Your task to perform on an android device: View the shopping cart on target. Add "asus zenbook" to the cart on target Image 0: 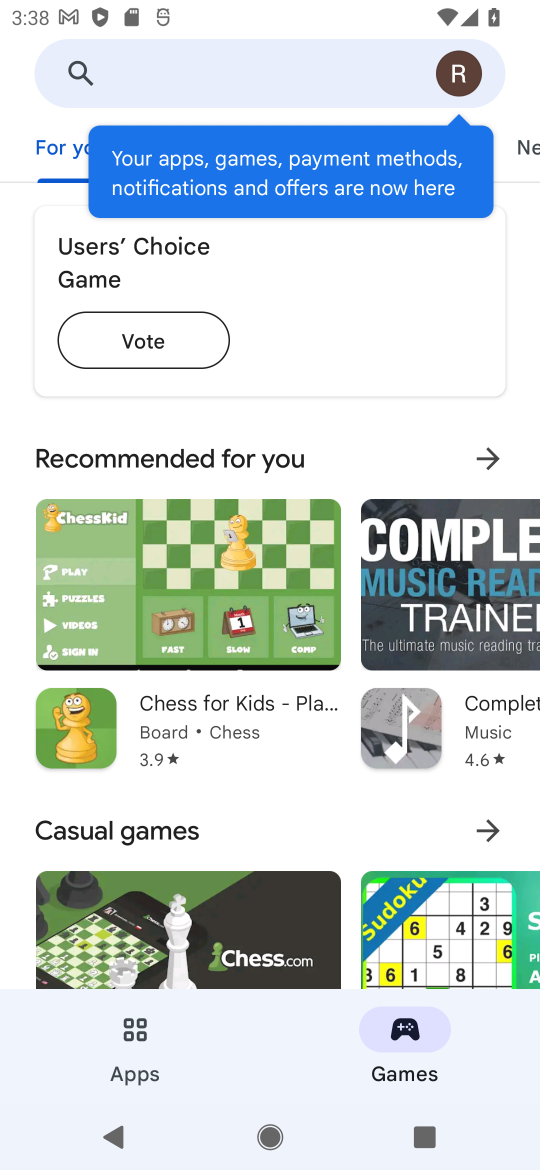
Step 0: press home button
Your task to perform on an android device: View the shopping cart on target. Add "asus zenbook" to the cart on target Image 1: 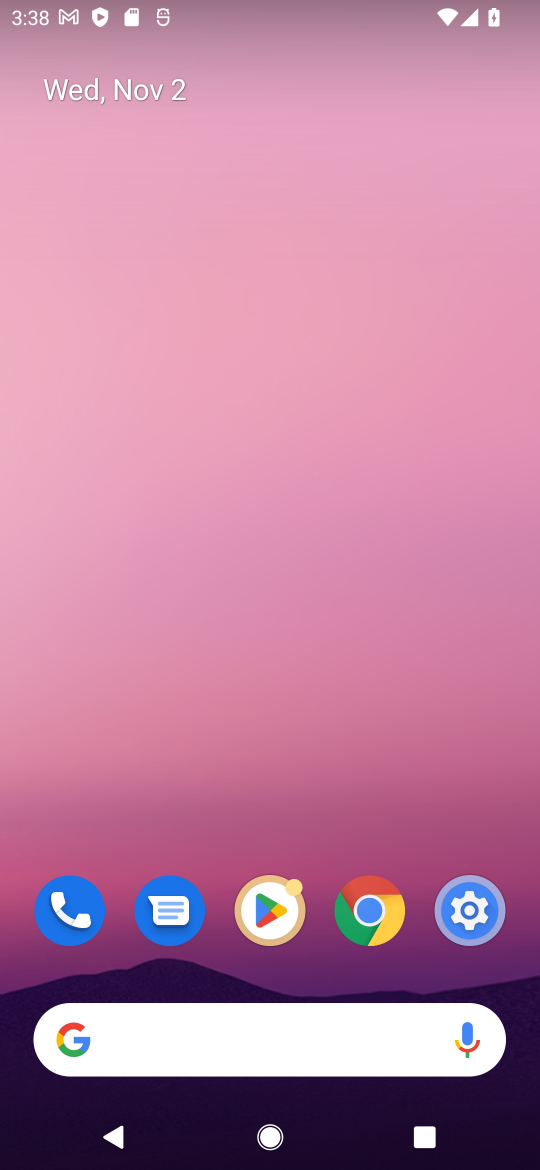
Step 1: click (311, 1054)
Your task to perform on an android device: View the shopping cart on target. Add "asus zenbook" to the cart on target Image 2: 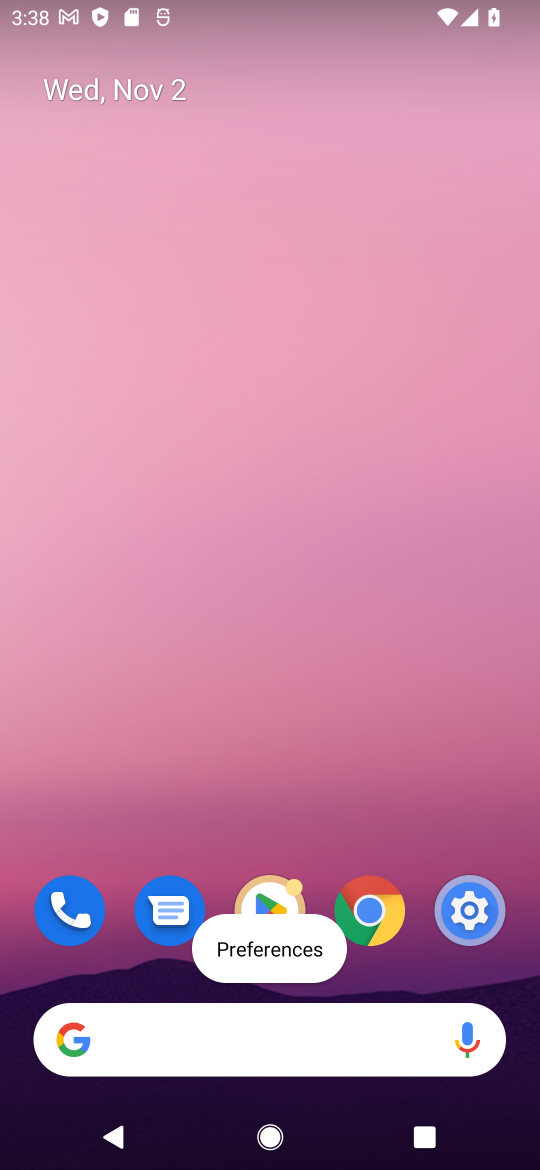
Step 2: click (273, 1049)
Your task to perform on an android device: View the shopping cart on target. Add "asus zenbook" to the cart on target Image 3: 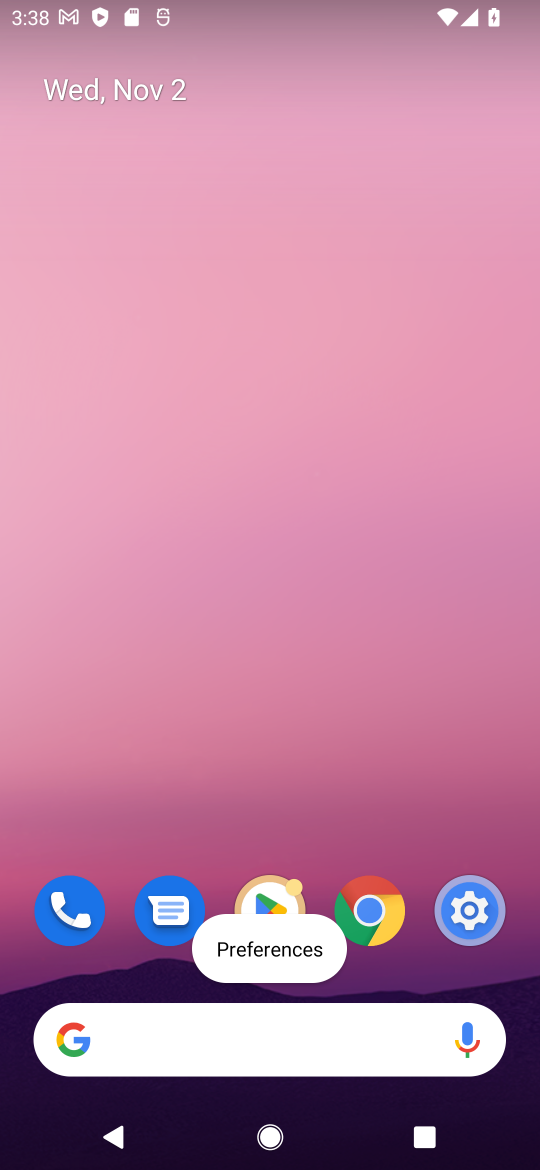
Step 3: click (271, 1049)
Your task to perform on an android device: View the shopping cart on target. Add "asus zenbook" to the cart on target Image 4: 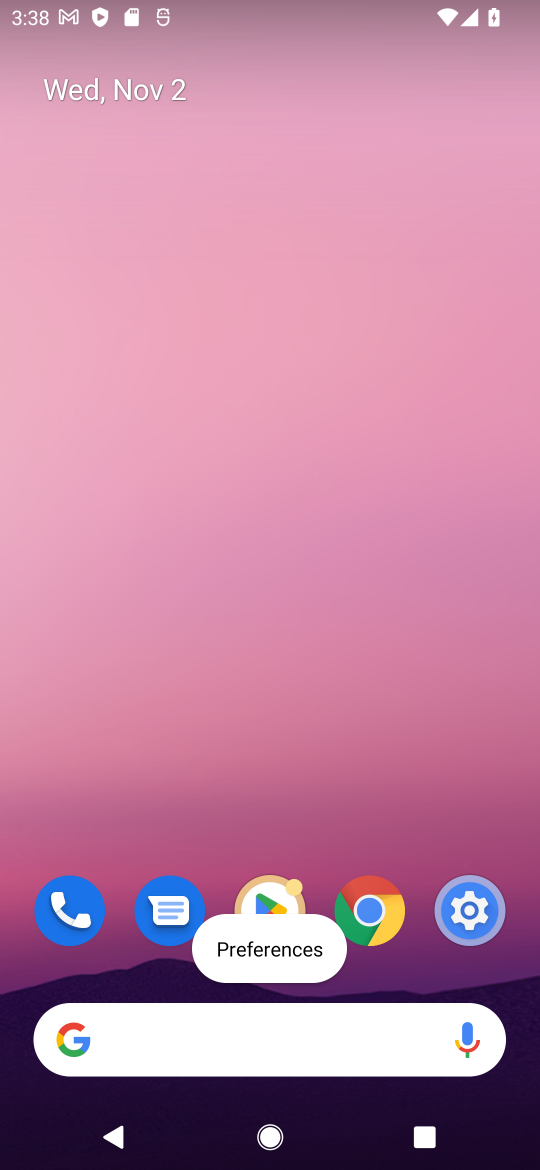
Step 4: click (248, 1058)
Your task to perform on an android device: View the shopping cart on target. Add "asus zenbook" to the cart on target Image 5: 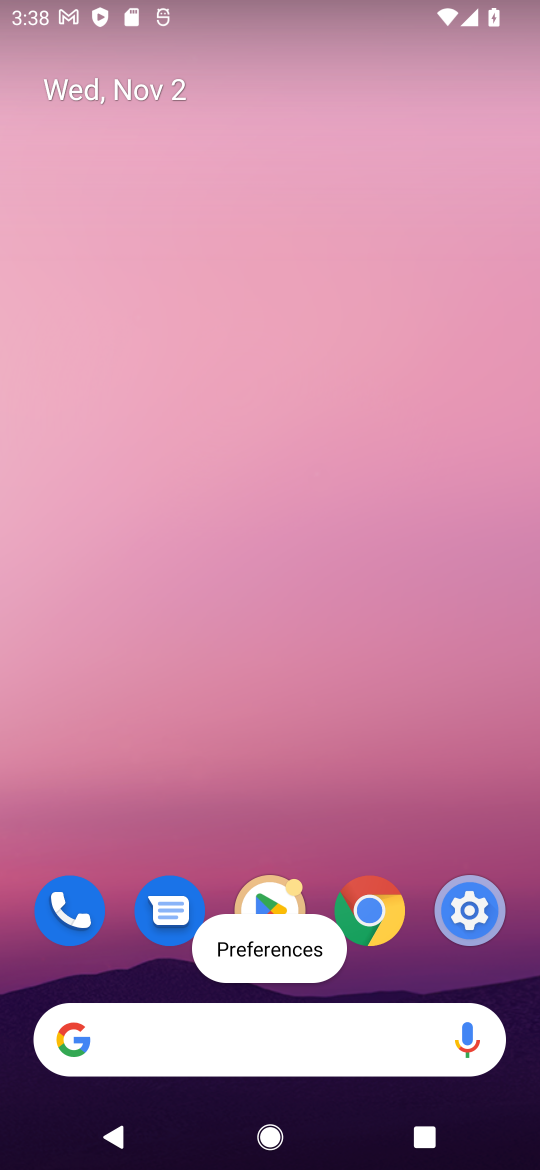
Step 5: click (165, 1055)
Your task to perform on an android device: View the shopping cart on target. Add "asus zenbook" to the cart on target Image 6: 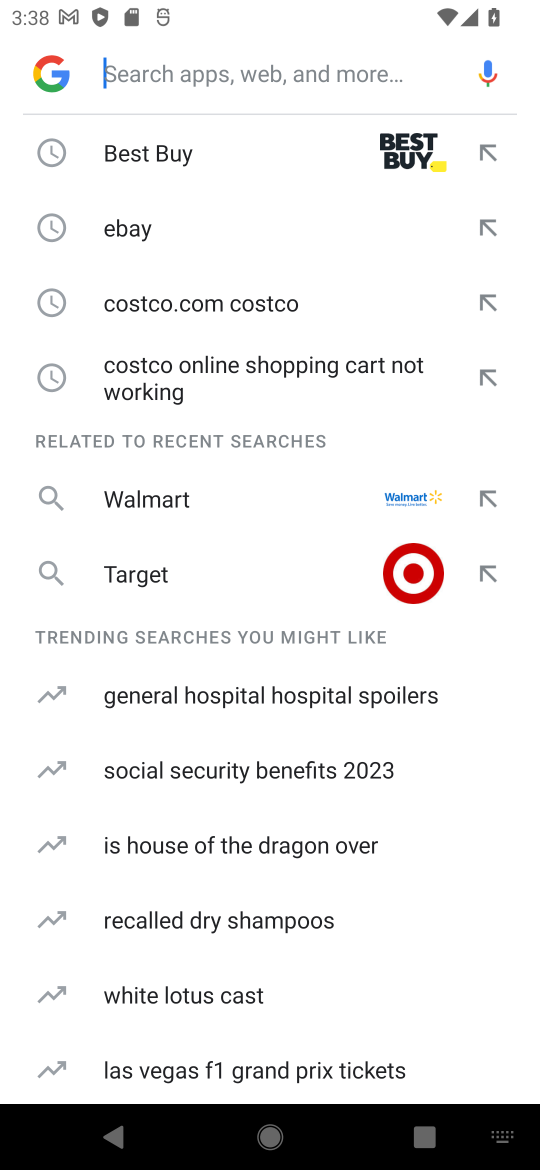
Step 6: click (190, 589)
Your task to perform on an android device: View the shopping cart on target. Add "asus zenbook" to the cart on target Image 7: 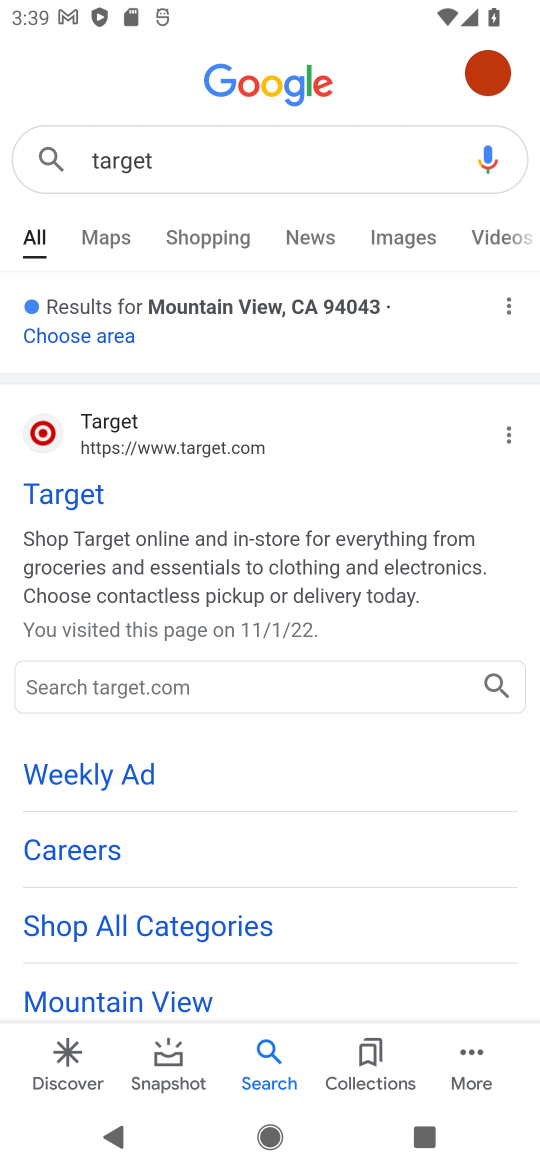
Step 7: click (106, 471)
Your task to perform on an android device: View the shopping cart on target. Add "asus zenbook" to the cart on target Image 8: 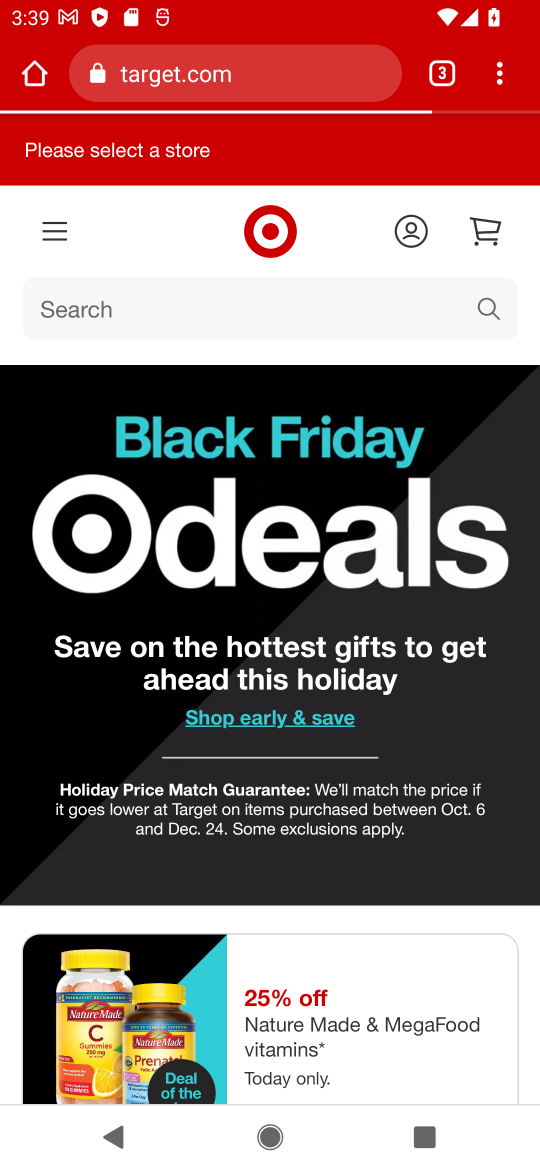
Step 8: click (132, 308)
Your task to perform on an android device: View the shopping cart on target. Add "asus zenbook" to the cart on target Image 9: 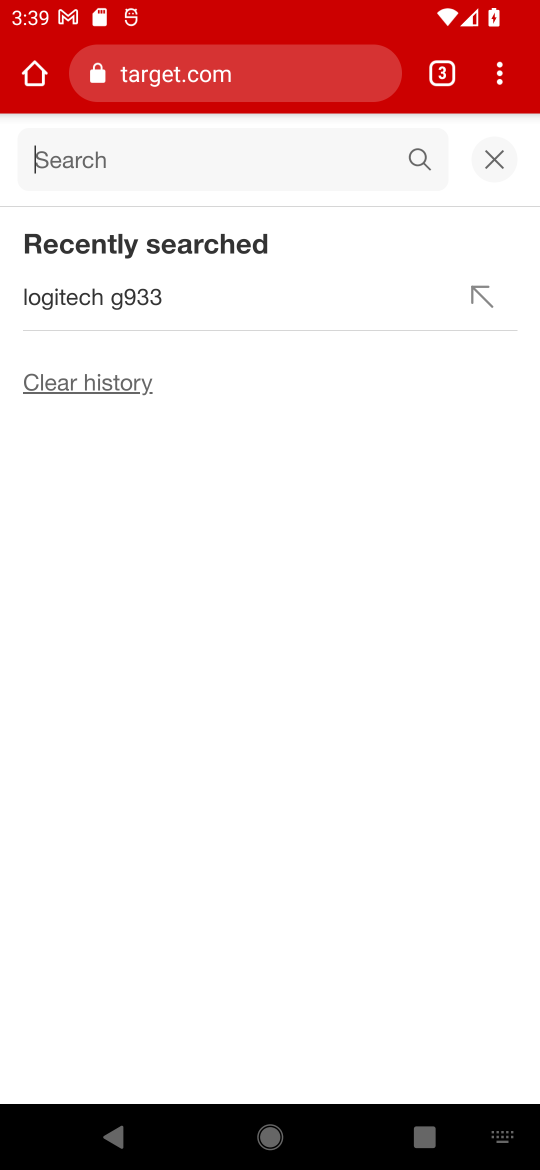
Step 9: type "asus zenbook"
Your task to perform on an android device: View the shopping cart on target. Add "asus zenbook" to the cart on target Image 10: 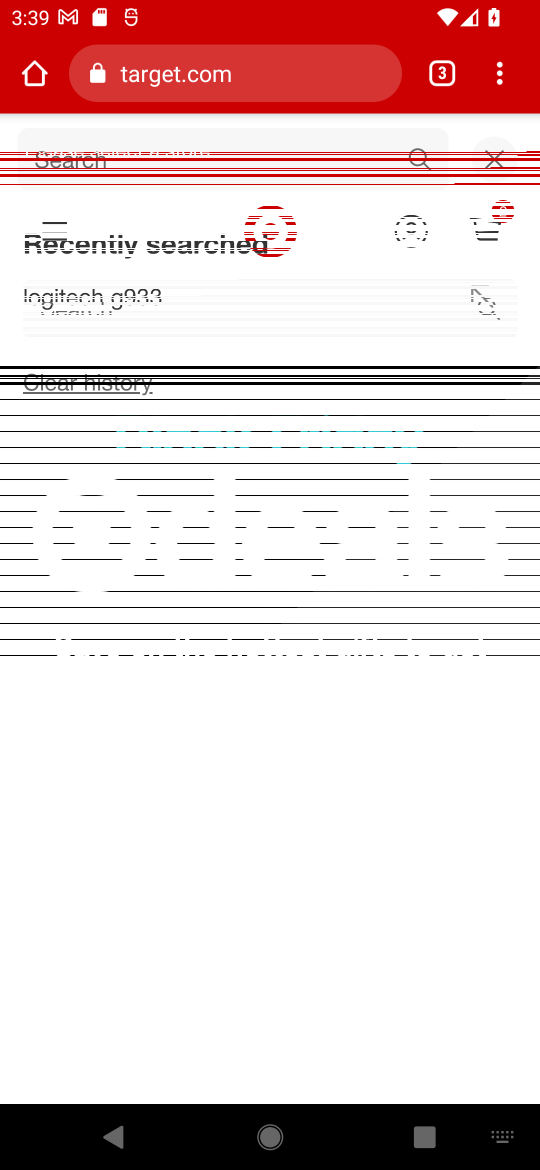
Step 10: type ""
Your task to perform on an android device: View the shopping cart on target. Add "asus zenbook" to the cart on target Image 11: 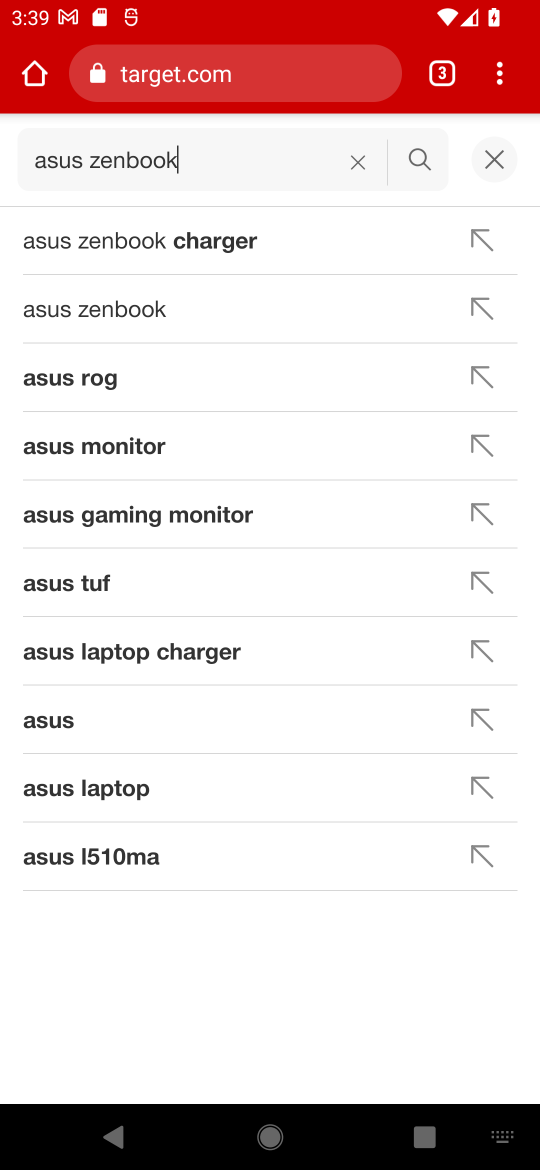
Step 11: press enter
Your task to perform on an android device: View the shopping cart on target. Add "asus zenbook" to the cart on target Image 12: 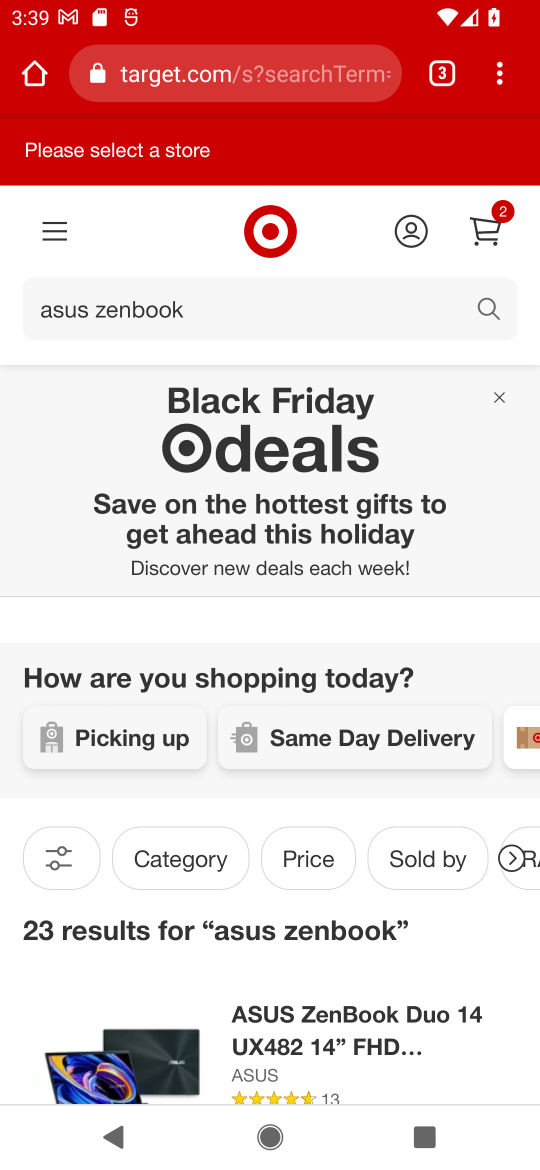
Step 12: press enter
Your task to perform on an android device: View the shopping cart on target. Add "asus zenbook" to the cart on target Image 13: 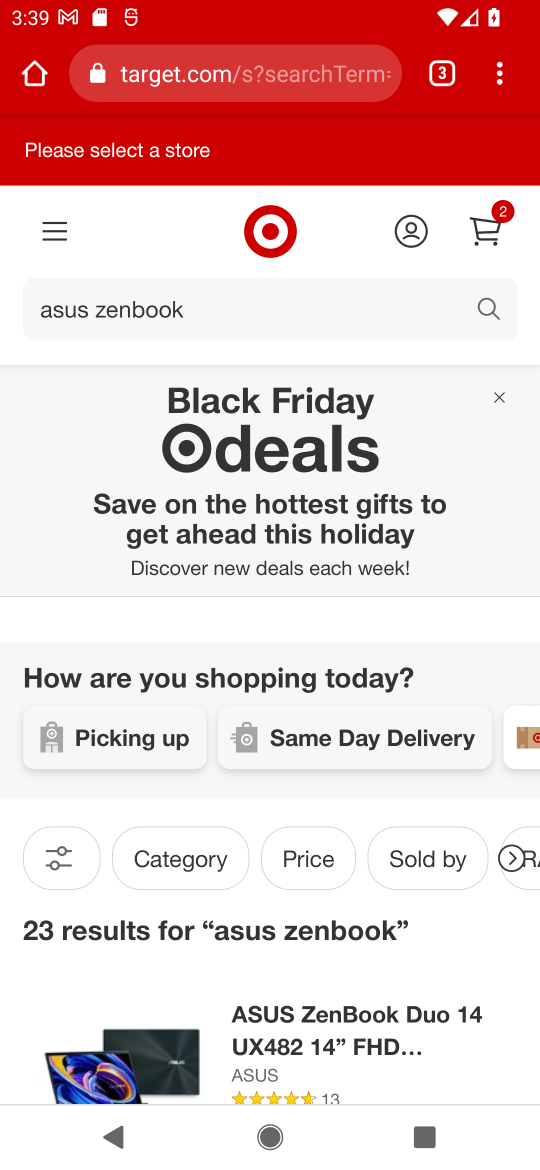
Step 13: click (491, 310)
Your task to perform on an android device: View the shopping cart on target. Add "asus zenbook" to the cart on target Image 14: 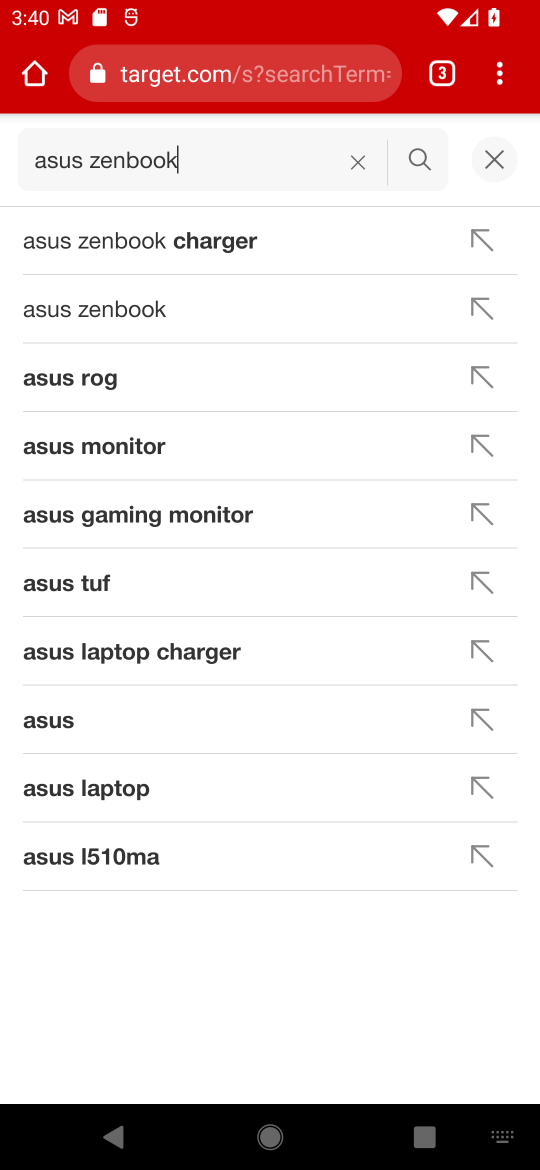
Step 14: click (422, 157)
Your task to perform on an android device: View the shopping cart on target. Add "asus zenbook" to the cart on target Image 15: 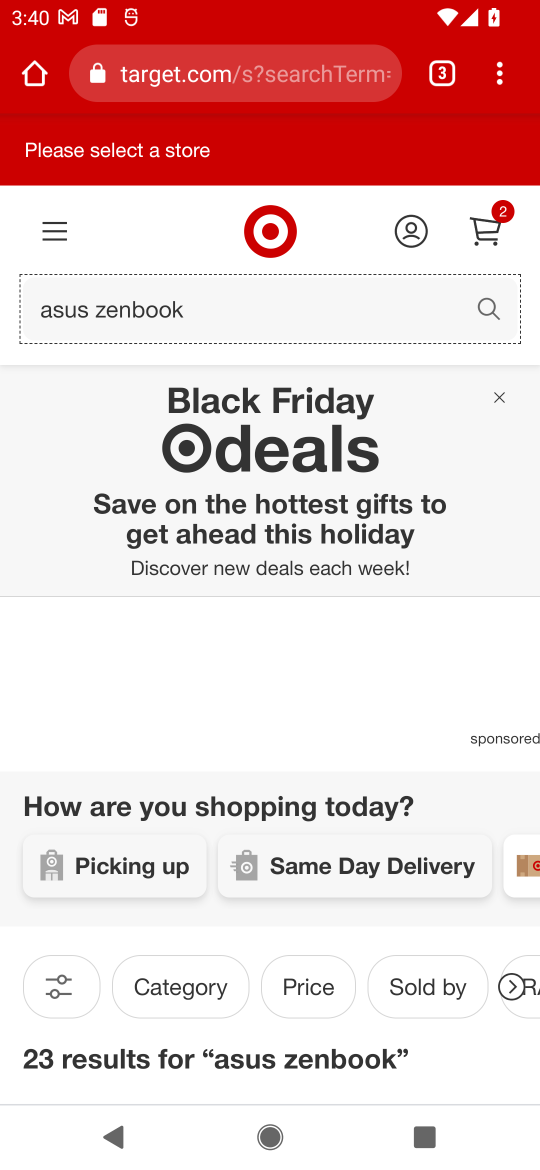
Step 15: click (486, 309)
Your task to perform on an android device: View the shopping cart on target. Add "asus zenbook" to the cart on target Image 16: 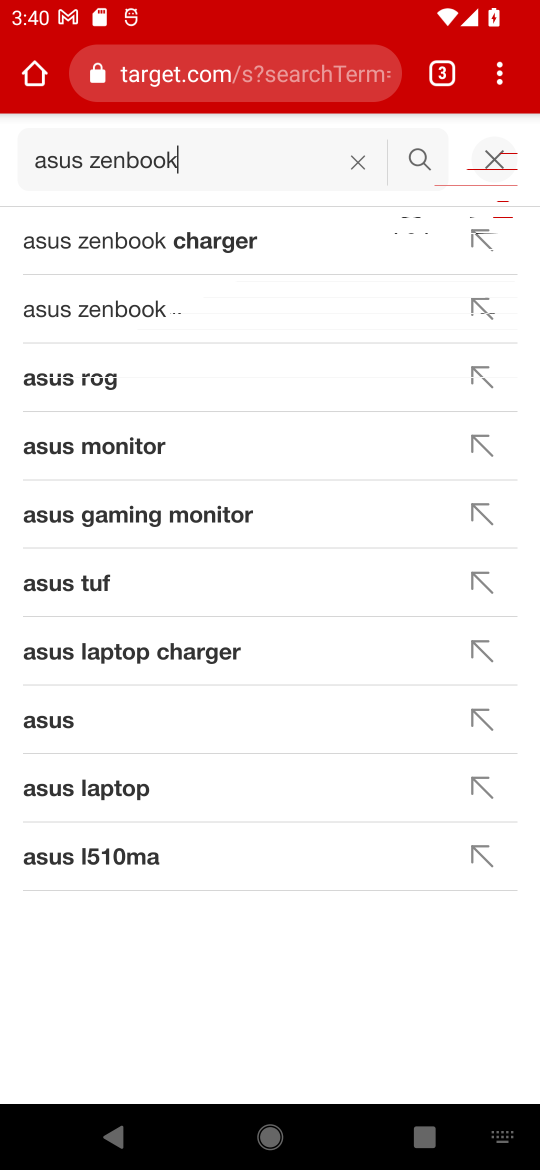
Step 16: click (406, 164)
Your task to perform on an android device: View the shopping cart on target. Add "asus zenbook" to the cart on target Image 17: 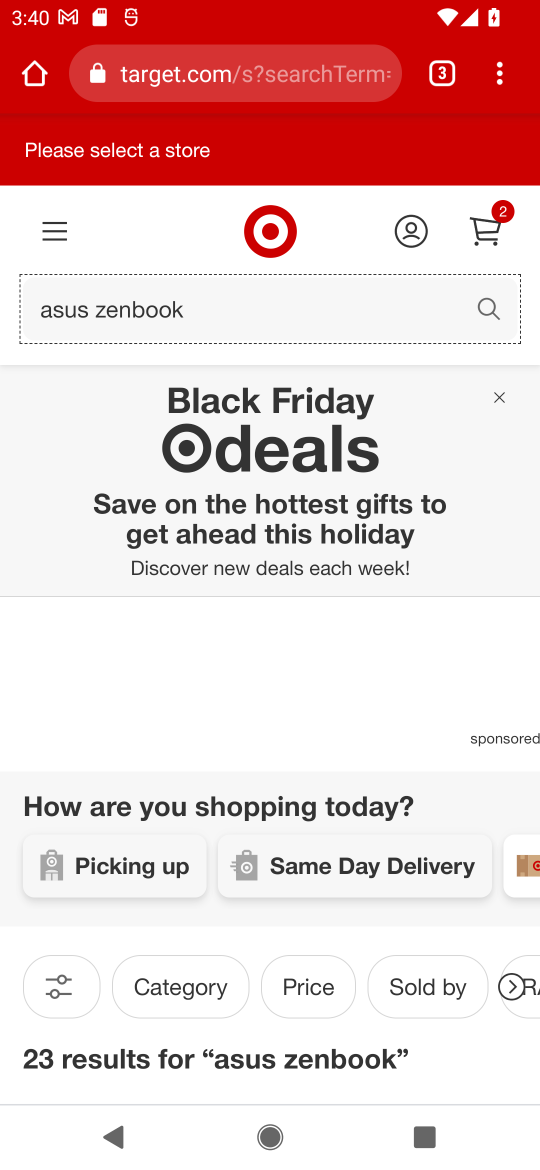
Step 17: drag from (304, 731) to (271, 215)
Your task to perform on an android device: View the shopping cart on target. Add "asus zenbook" to the cart on target Image 18: 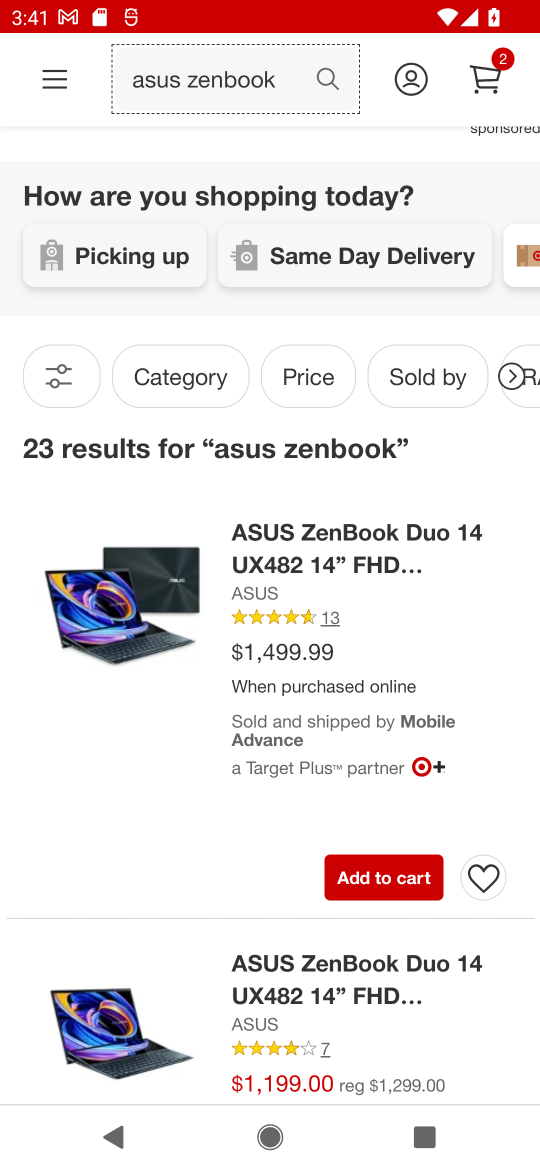
Step 18: click (407, 866)
Your task to perform on an android device: View the shopping cart on target. Add "asus zenbook" to the cart on target Image 19: 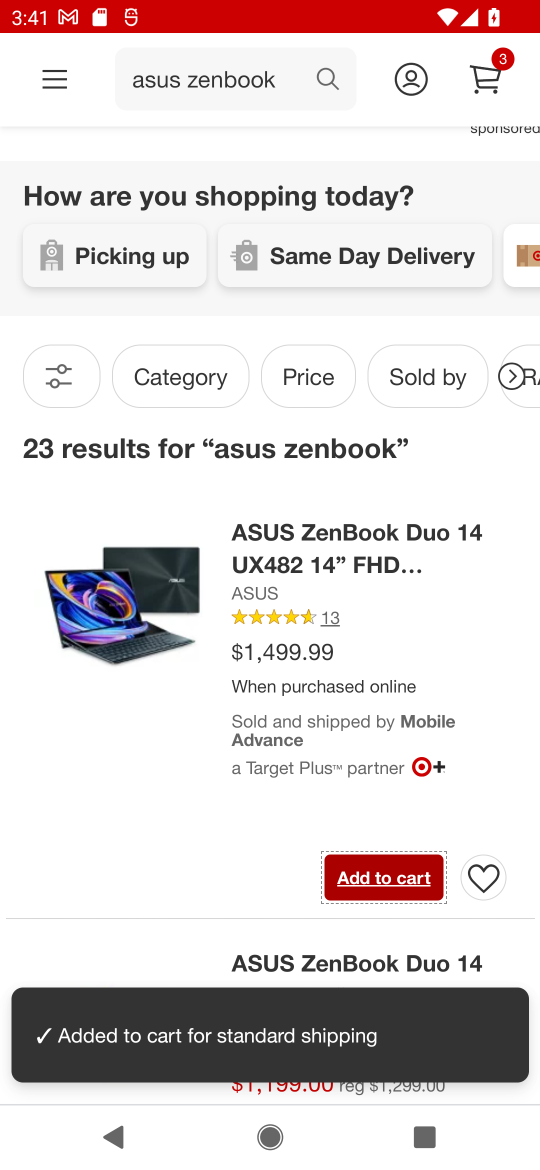
Step 19: click (382, 879)
Your task to perform on an android device: View the shopping cart on target. Add "asus zenbook" to the cart on target Image 20: 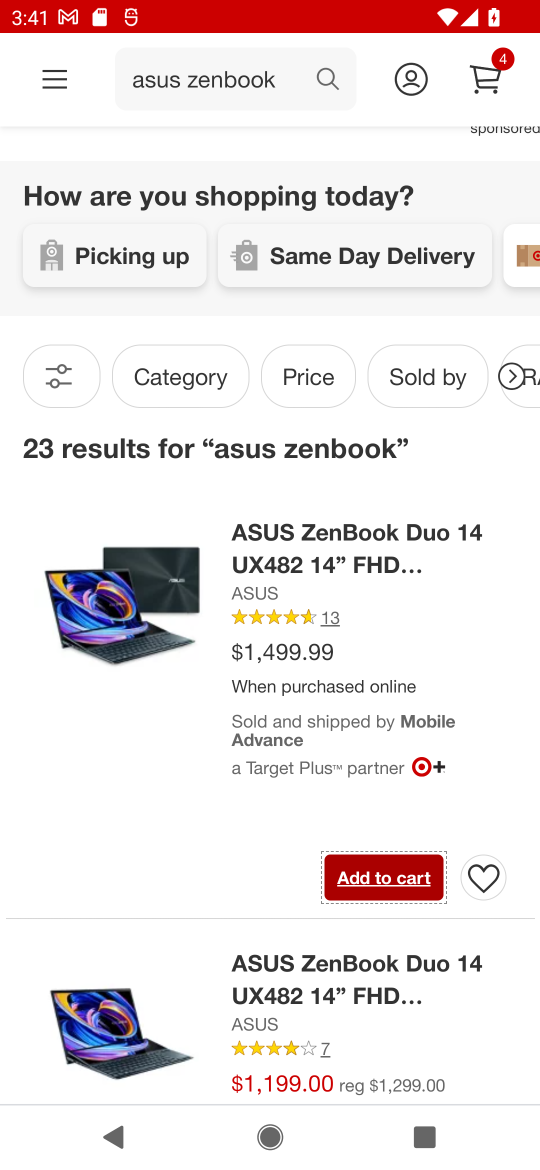
Step 20: click (378, 874)
Your task to perform on an android device: View the shopping cart on target. Add "asus zenbook" to the cart on target Image 21: 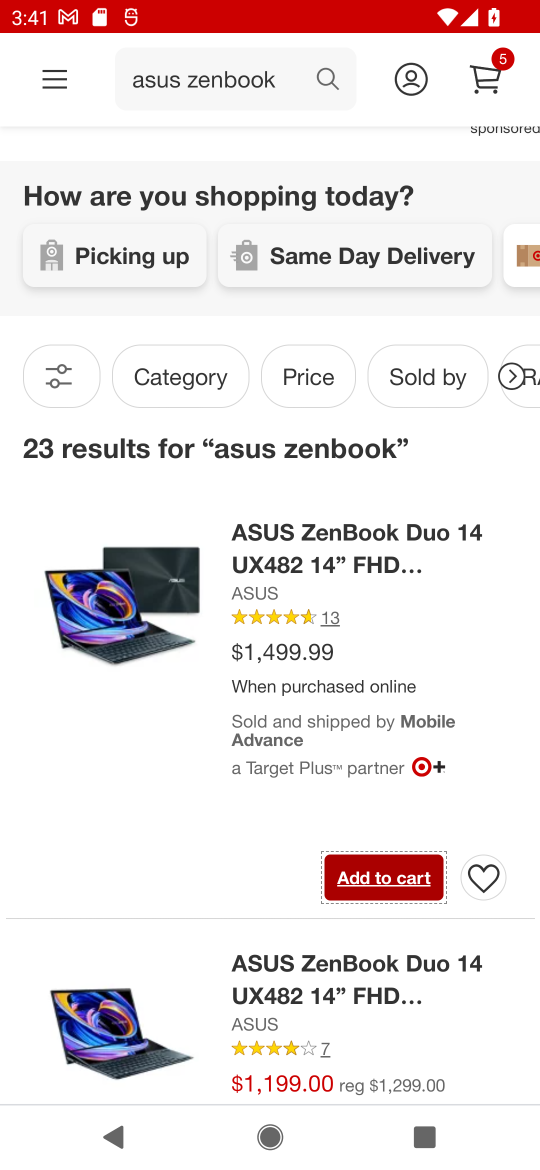
Step 21: click (356, 872)
Your task to perform on an android device: View the shopping cart on target. Add "asus zenbook" to the cart on target Image 22: 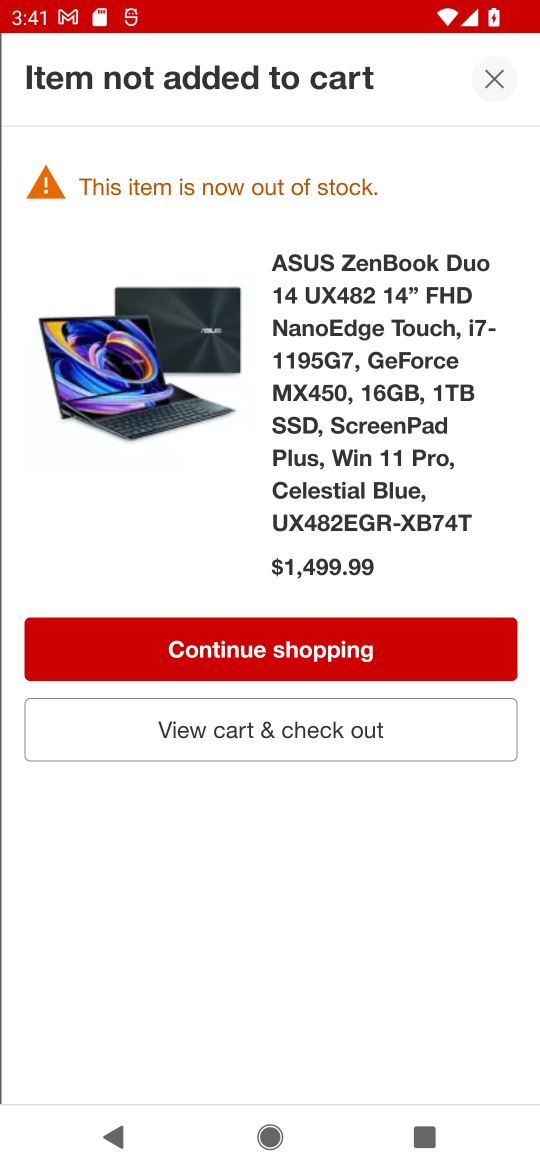
Step 22: task complete